Your task to perform on an android device: Turn on the flashlight Image 0: 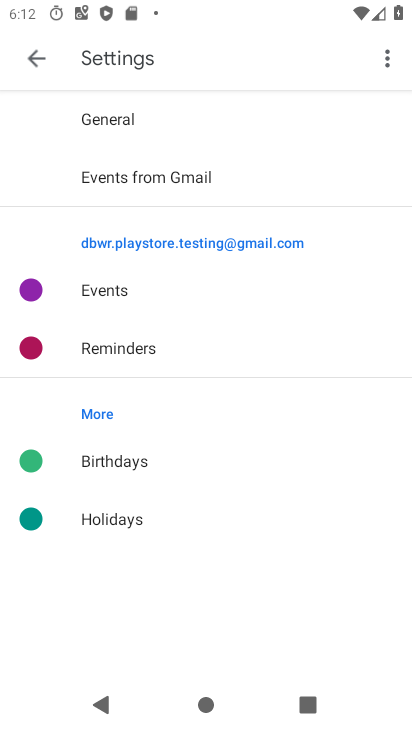
Step 0: press home button
Your task to perform on an android device: Turn on the flashlight Image 1: 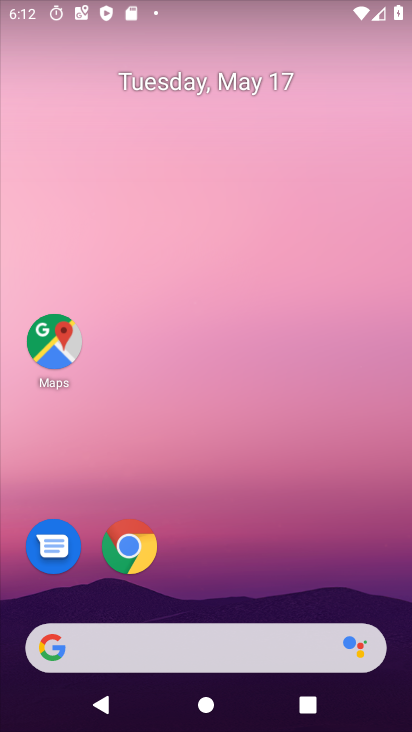
Step 1: drag from (240, 573) to (218, 180)
Your task to perform on an android device: Turn on the flashlight Image 2: 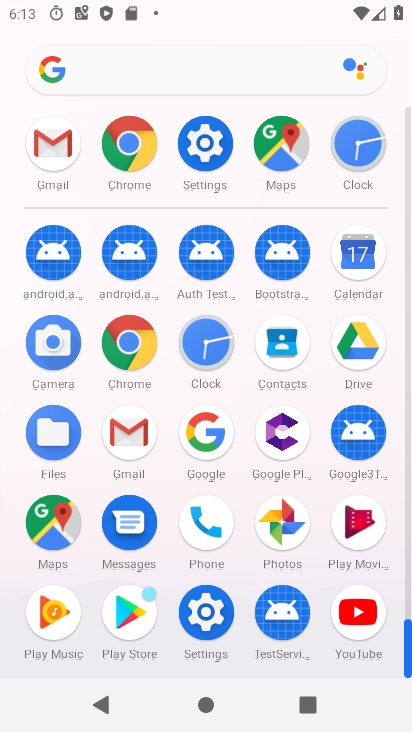
Step 2: click (210, 177)
Your task to perform on an android device: Turn on the flashlight Image 3: 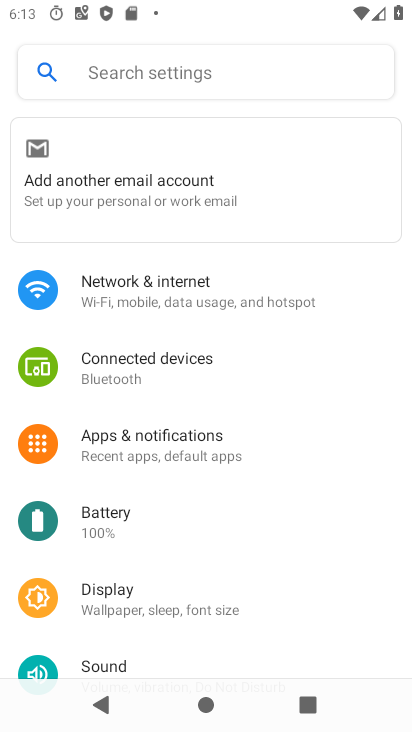
Step 3: task complete